Your task to perform on an android device: When is my next appointment? Image 0: 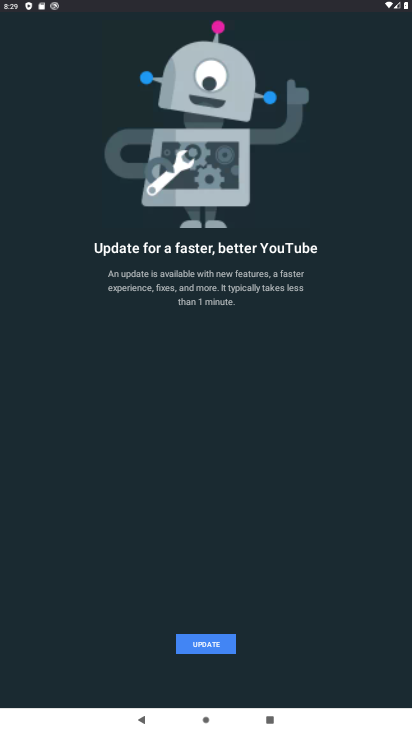
Step 0: press home button
Your task to perform on an android device: When is my next appointment? Image 1: 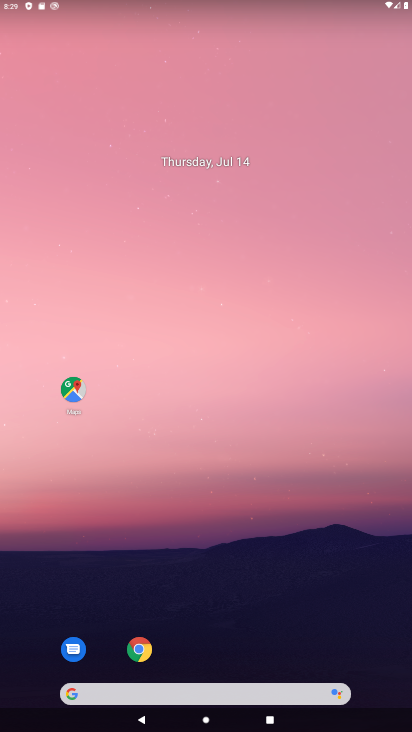
Step 1: drag from (182, 576) to (170, 192)
Your task to perform on an android device: When is my next appointment? Image 2: 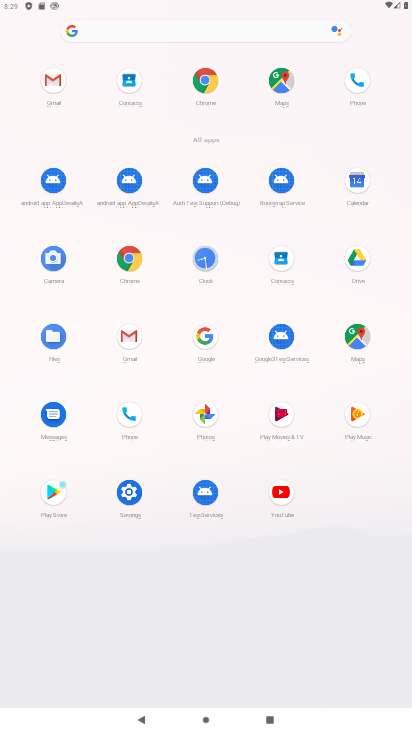
Step 2: click (353, 197)
Your task to perform on an android device: When is my next appointment? Image 3: 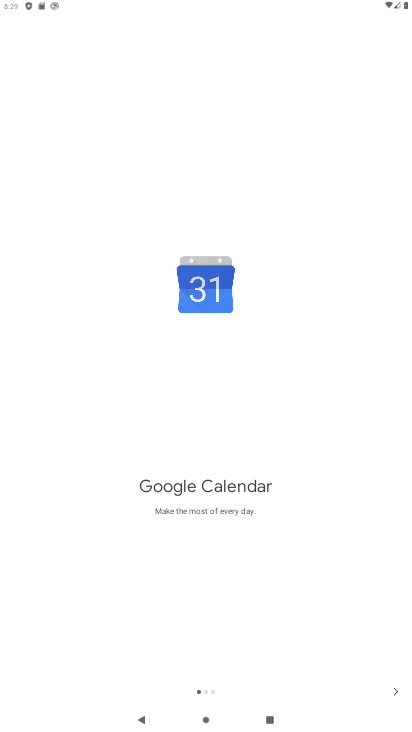
Step 3: click (390, 688)
Your task to perform on an android device: When is my next appointment? Image 4: 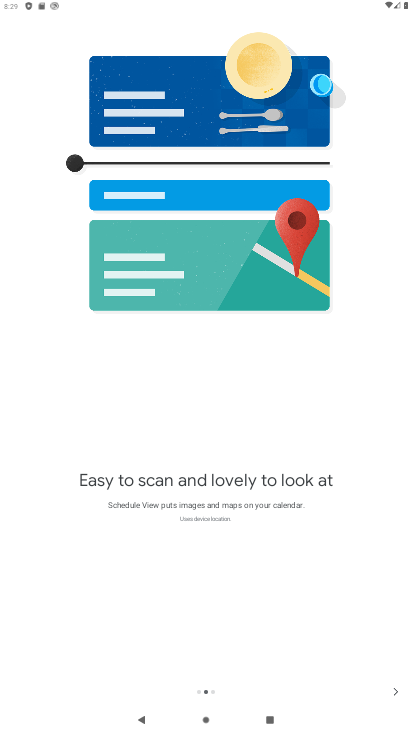
Step 4: click (390, 688)
Your task to perform on an android device: When is my next appointment? Image 5: 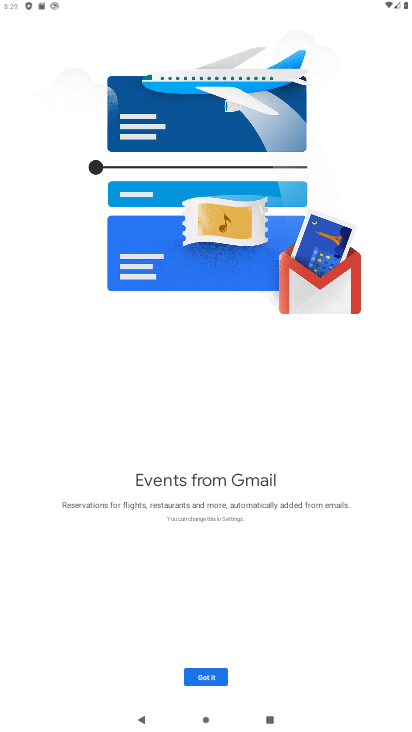
Step 5: click (390, 688)
Your task to perform on an android device: When is my next appointment? Image 6: 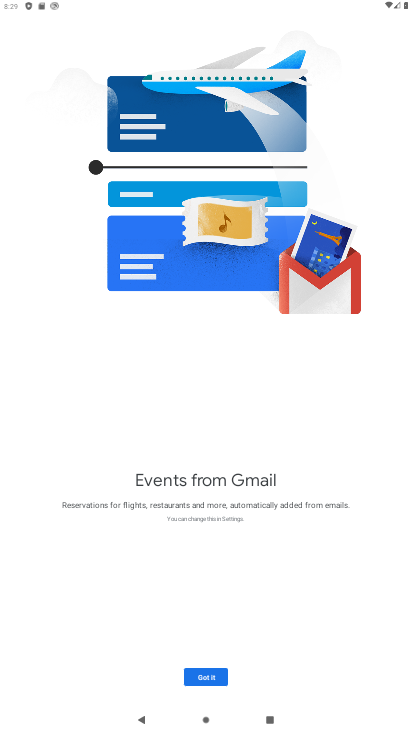
Step 6: click (169, 677)
Your task to perform on an android device: When is my next appointment? Image 7: 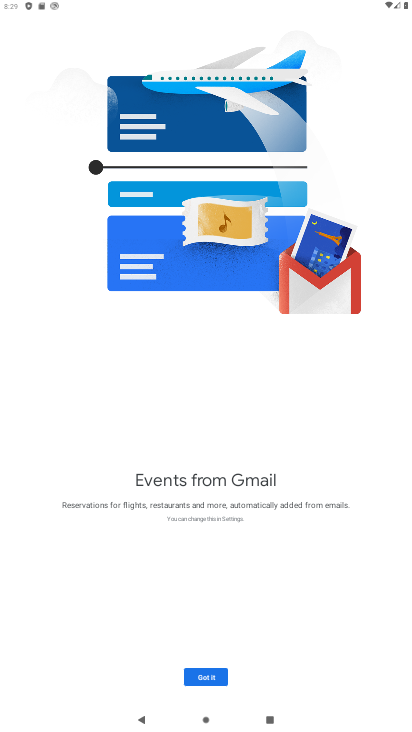
Step 7: click (199, 680)
Your task to perform on an android device: When is my next appointment? Image 8: 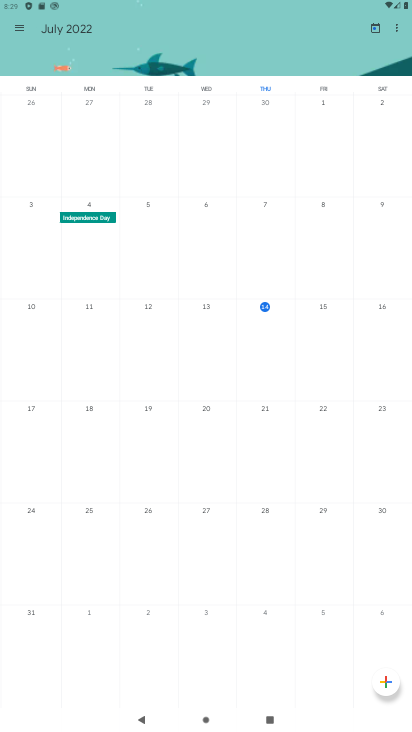
Step 8: click (21, 35)
Your task to perform on an android device: When is my next appointment? Image 9: 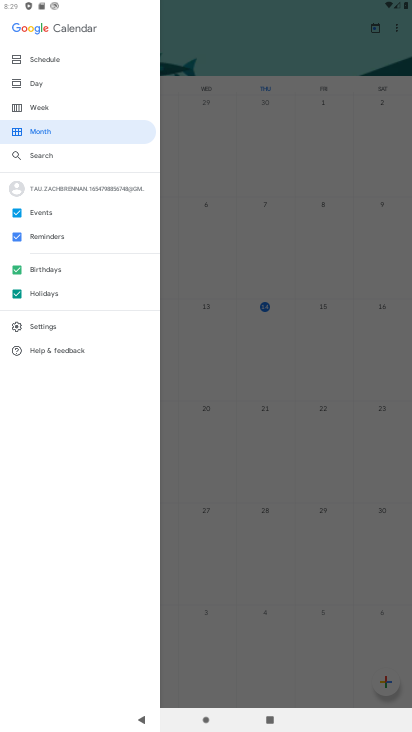
Step 9: click (57, 64)
Your task to perform on an android device: When is my next appointment? Image 10: 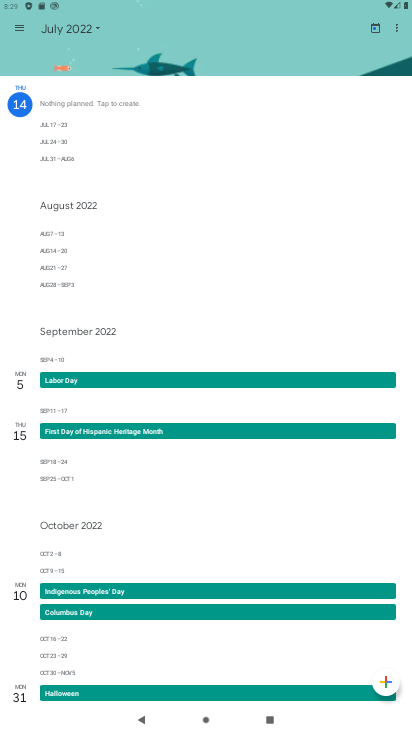
Step 10: task complete